Your task to perform on an android device: turn on sleep mode Image 0: 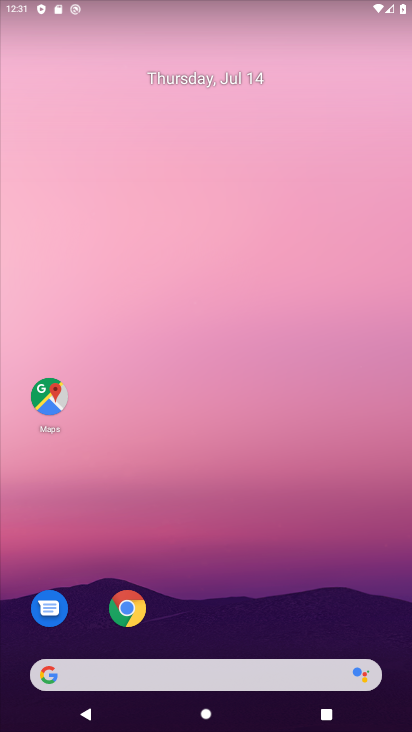
Step 0: drag from (178, 647) to (202, 200)
Your task to perform on an android device: turn on sleep mode Image 1: 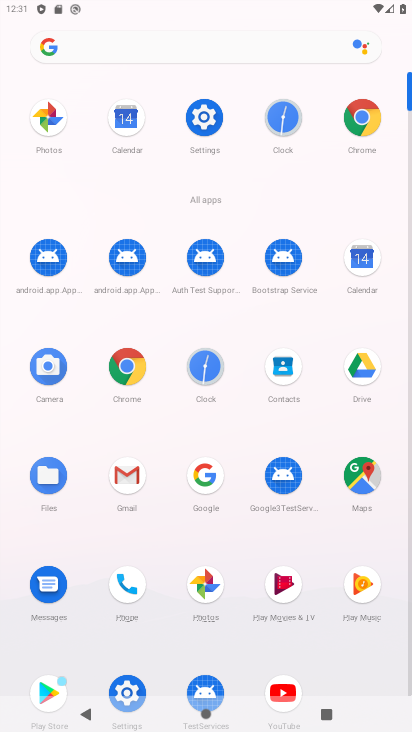
Step 1: click (203, 117)
Your task to perform on an android device: turn on sleep mode Image 2: 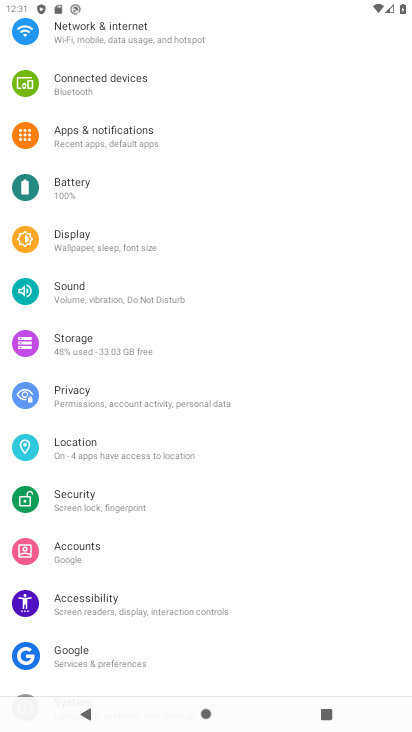
Step 2: drag from (193, 123) to (215, 551)
Your task to perform on an android device: turn on sleep mode Image 3: 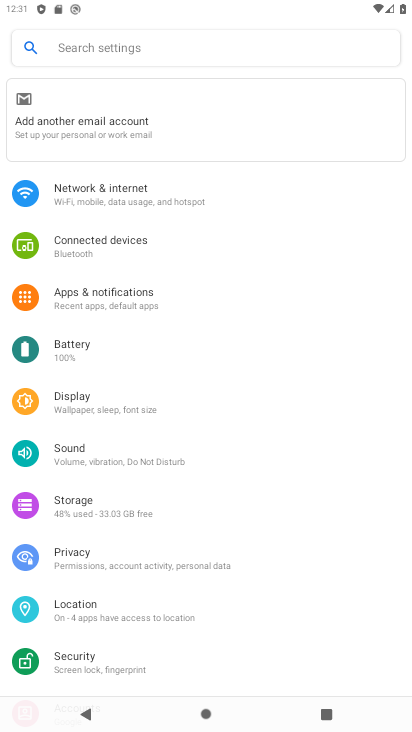
Step 3: click (106, 413)
Your task to perform on an android device: turn on sleep mode Image 4: 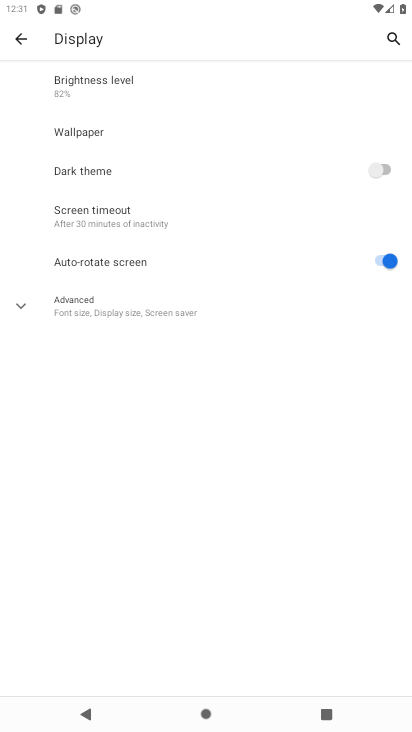
Step 4: click (154, 210)
Your task to perform on an android device: turn on sleep mode Image 5: 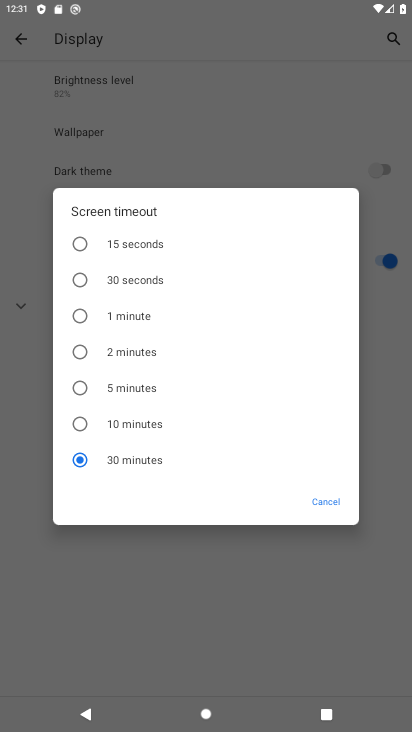
Step 5: click (83, 243)
Your task to perform on an android device: turn on sleep mode Image 6: 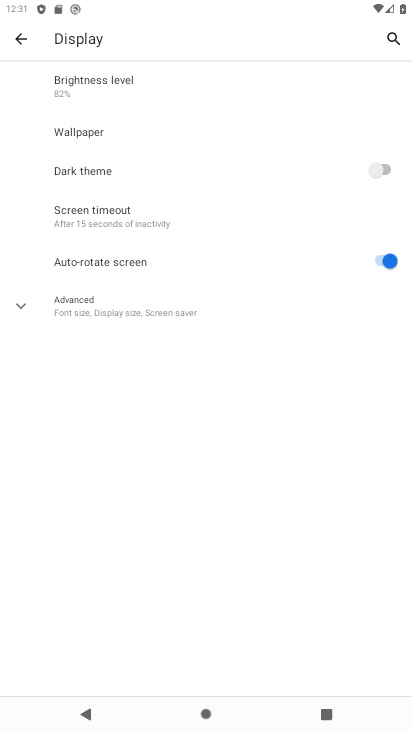
Step 6: task complete